Your task to perform on an android device: Open the Play Movies app and select the watchlist tab. Image 0: 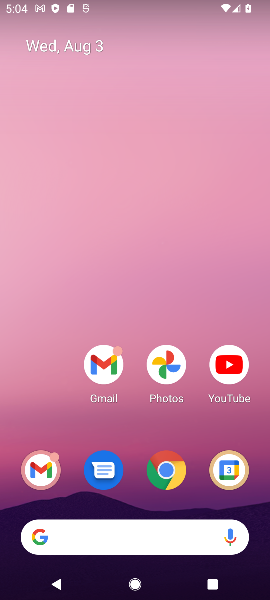
Step 0: drag from (44, 390) to (73, 80)
Your task to perform on an android device: Open the Play Movies app and select the watchlist tab. Image 1: 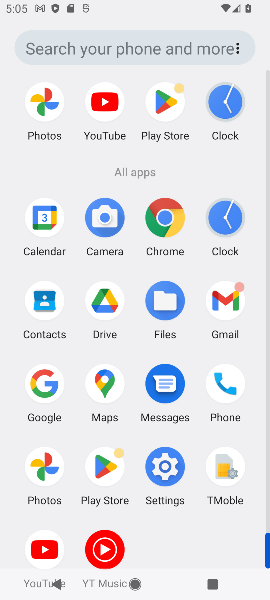
Step 1: task complete